Your task to perform on an android device: Show me recent news Image 0: 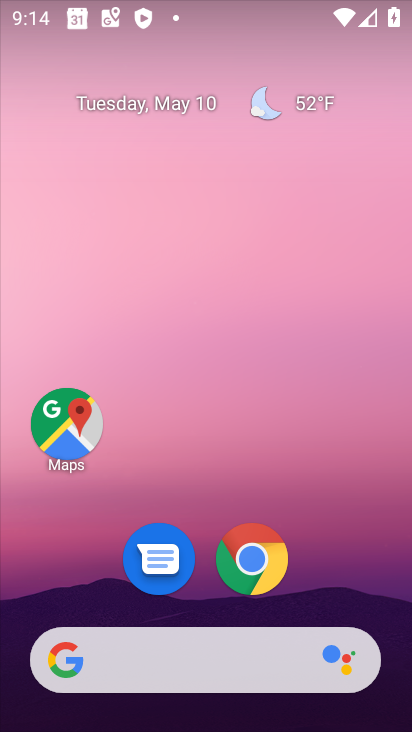
Step 0: drag from (331, 514) to (253, 23)
Your task to perform on an android device: Show me recent news Image 1: 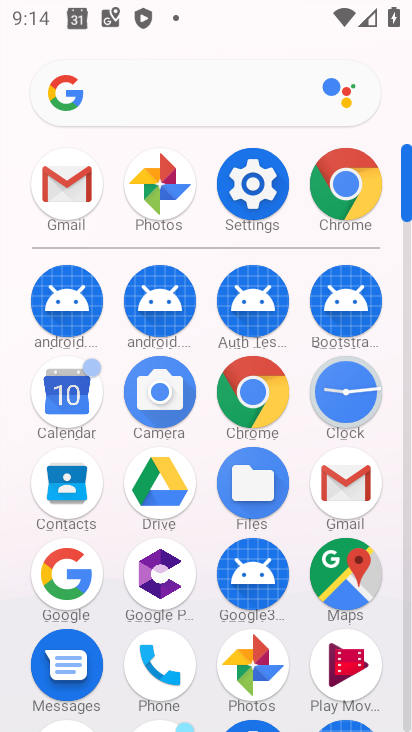
Step 1: drag from (1, 607) to (5, 203)
Your task to perform on an android device: Show me recent news Image 2: 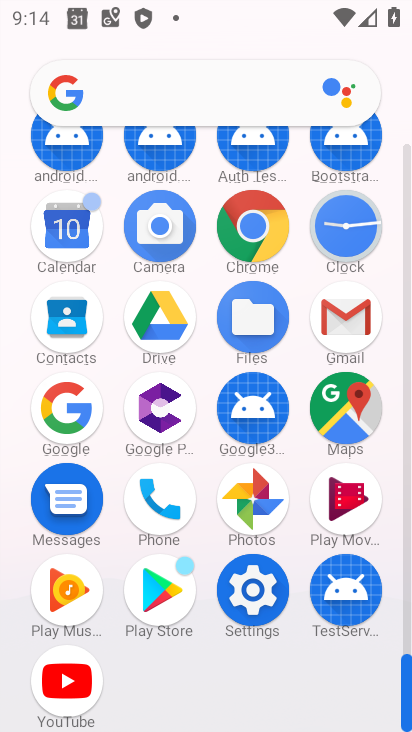
Step 2: click (250, 218)
Your task to perform on an android device: Show me recent news Image 3: 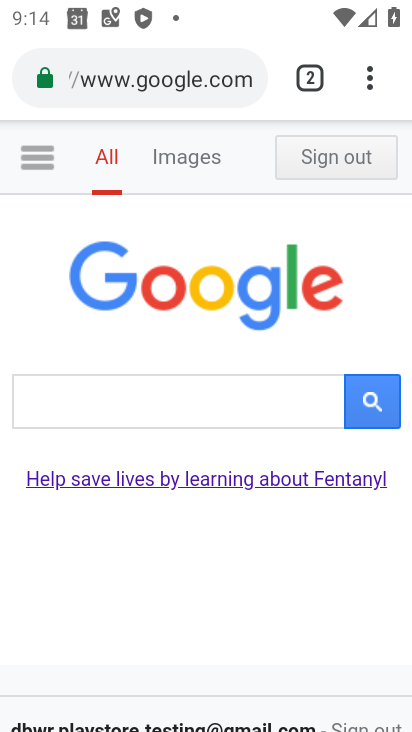
Step 3: click (194, 72)
Your task to perform on an android device: Show me recent news Image 4: 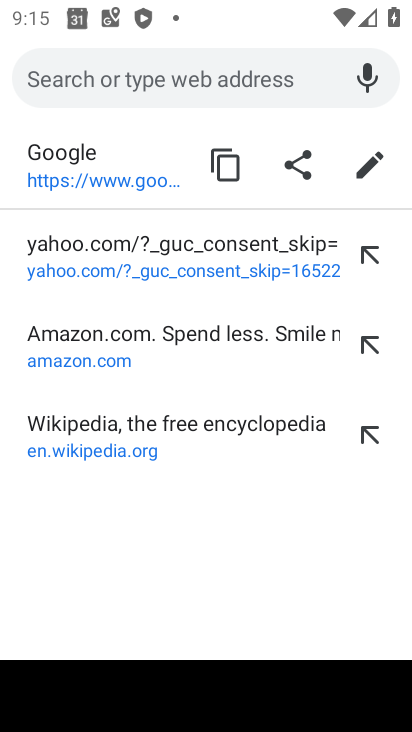
Step 4: type "Show me recent news"
Your task to perform on an android device: Show me recent news Image 5: 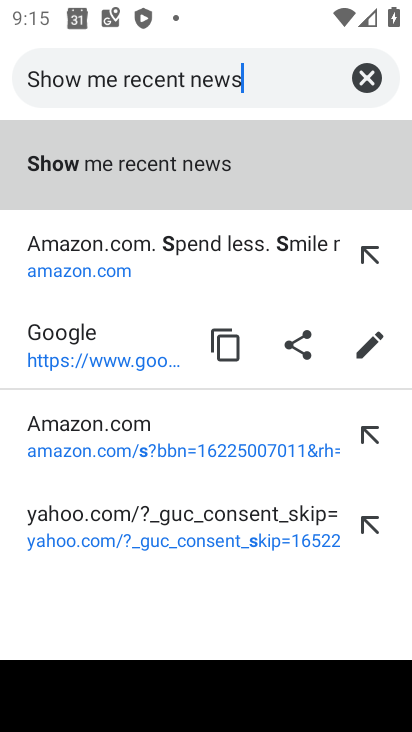
Step 5: type ""
Your task to perform on an android device: Show me recent news Image 6: 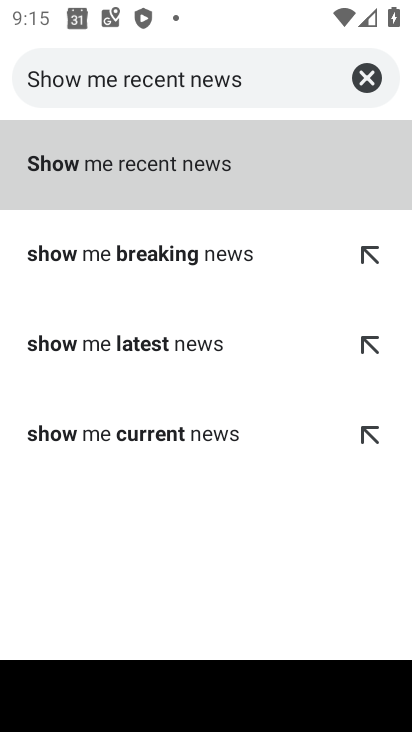
Step 6: click (196, 181)
Your task to perform on an android device: Show me recent news Image 7: 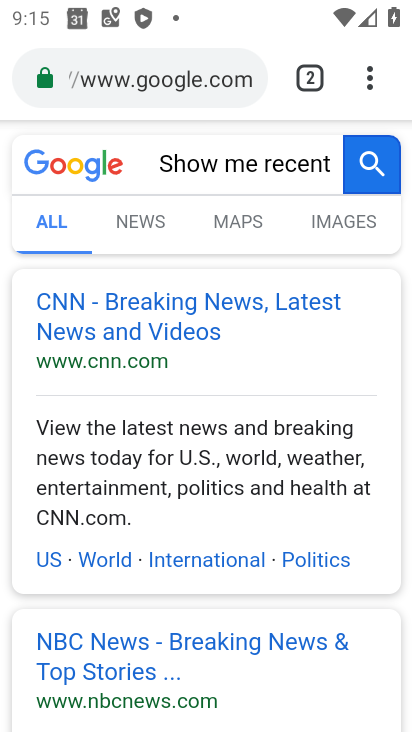
Step 7: click (135, 218)
Your task to perform on an android device: Show me recent news Image 8: 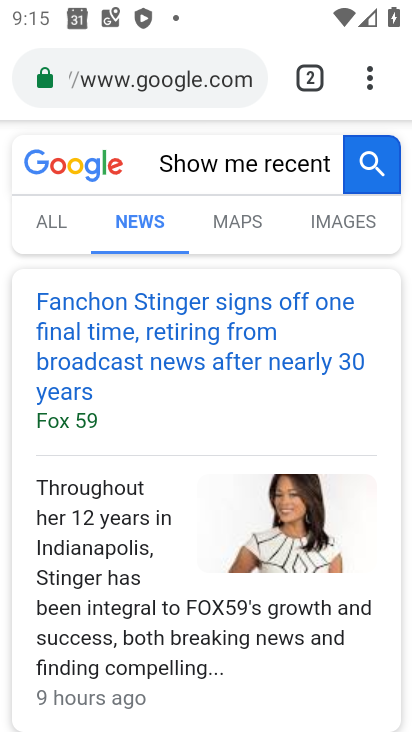
Step 8: task complete